Your task to perform on an android device: Go to ESPN.com Image 0: 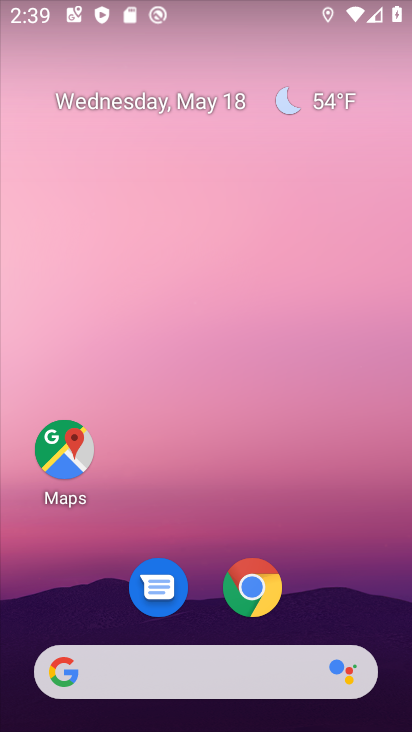
Step 0: click (216, 187)
Your task to perform on an android device: Go to ESPN.com Image 1: 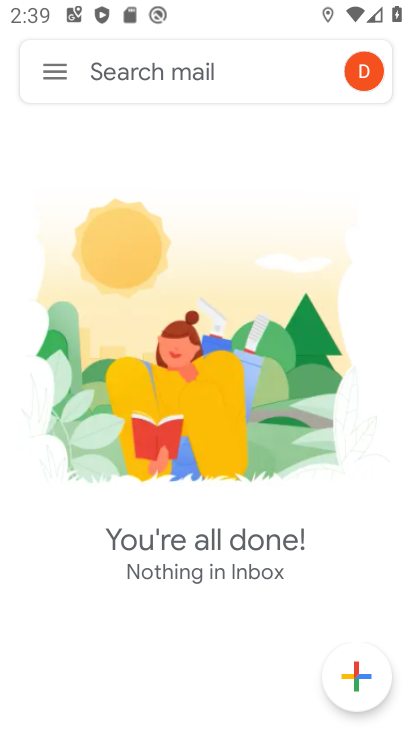
Step 1: drag from (196, 618) to (218, 130)
Your task to perform on an android device: Go to ESPN.com Image 2: 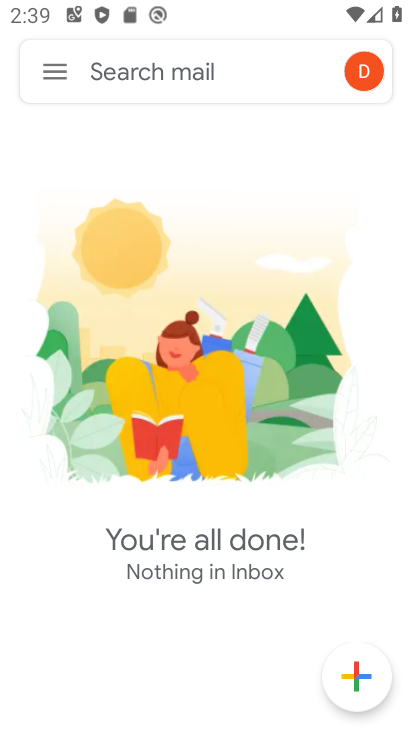
Step 2: press home button
Your task to perform on an android device: Go to ESPN.com Image 3: 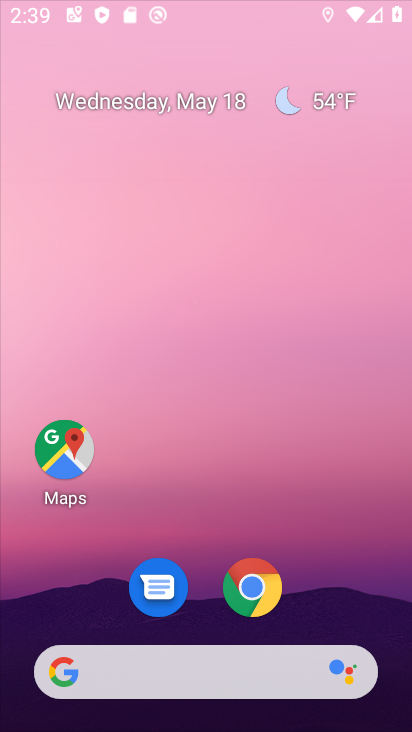
Step 3: drag from (205, 576) to (257, 44)
Your task to perform on an android device: Go to ESPN.com Image 4: 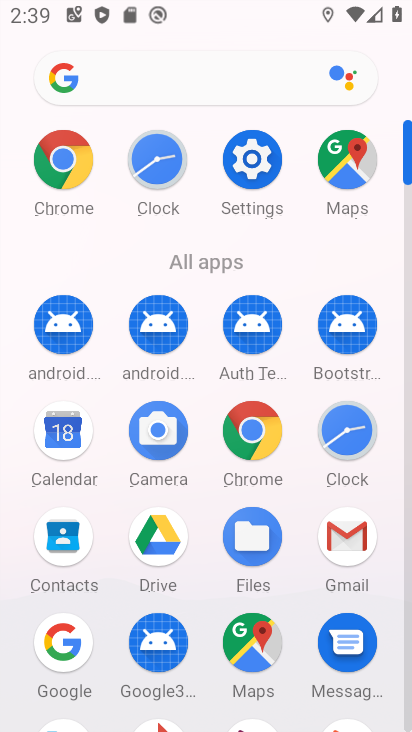
Step 4: click (166, 67)
Your task to perform on an android device: Go to ESPN.com Image 5: 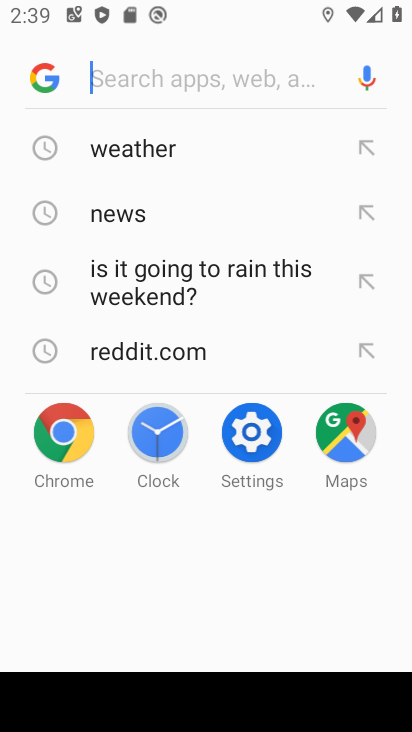
Step 5: type "espn.com"
Your task to perform on an android device: Go to ESPN.com Image 6: 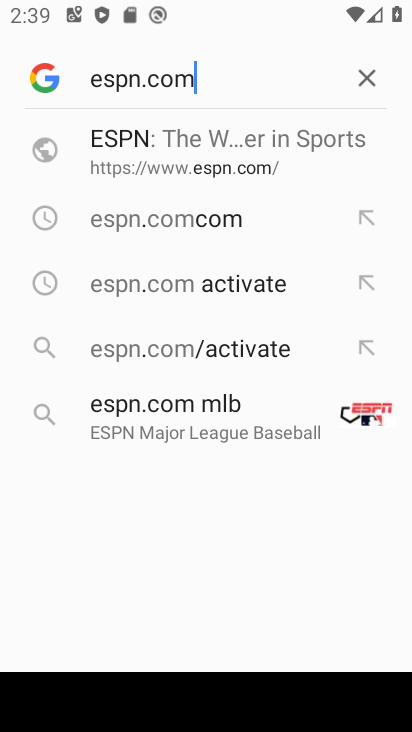
Step 6: click (170, 150)
Your task to perform on an android device: Go to ESPN.com Image 7: 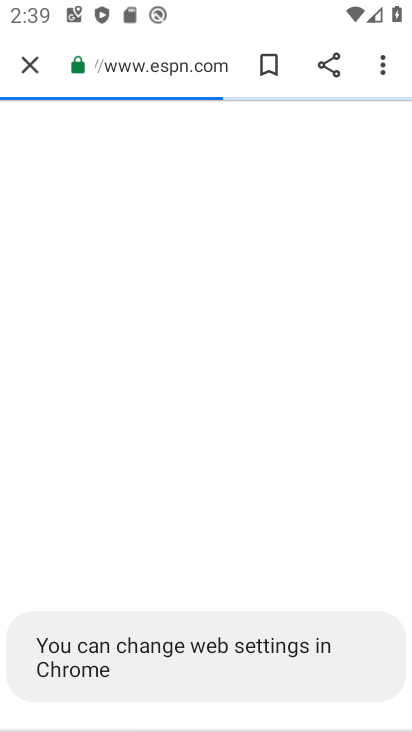
Step 7: task complete